Your task to perform on an android device: open device folders in google photos Image 0: 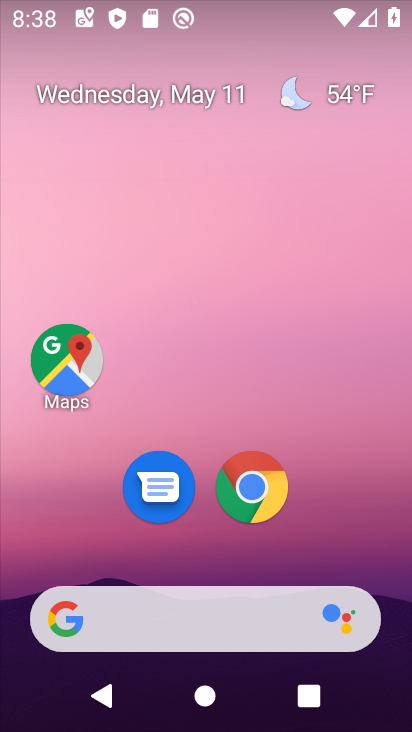
Step 0: drag from (88, 576) to (264, 52)
Your task to perform on an android device: open device folders in google photos Image 1: 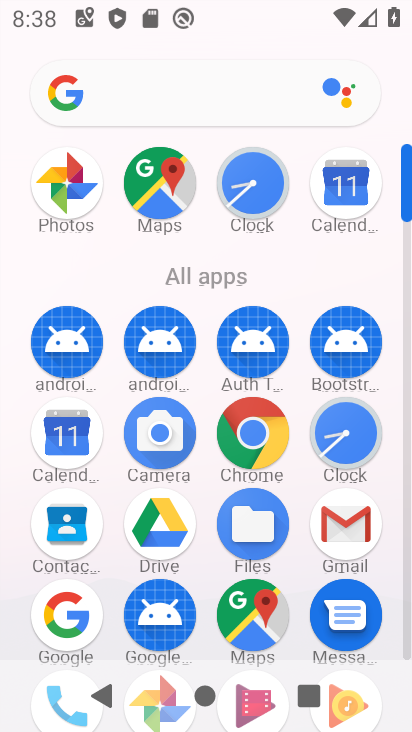
Step 1: drag from (215, 568) to (257, 397)
Your task to perform on an android device: open device folders in google photos Image 2: 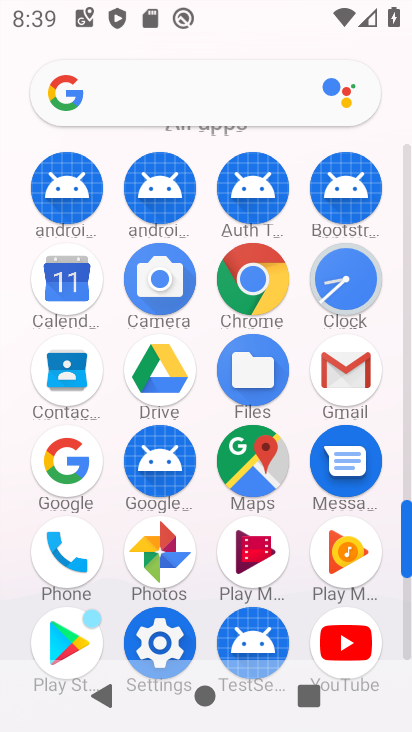
Step 2: click (173, 577)
Your task to perform on an android device: open device folders in google photos Image 3: 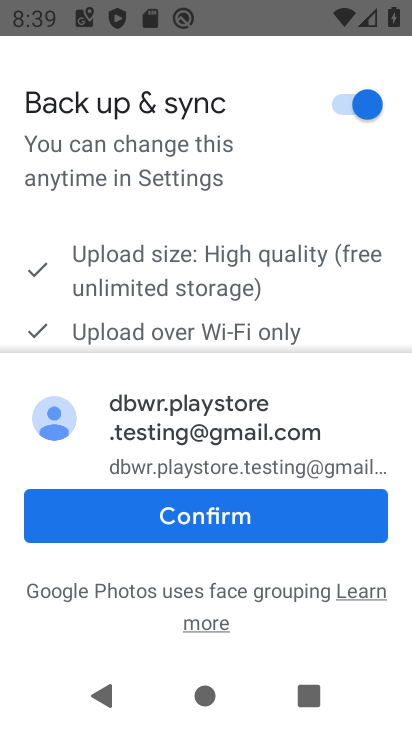
Step 3: click (207, 532)
Your task to perform on an android device: open device folders in google photos Image 4: 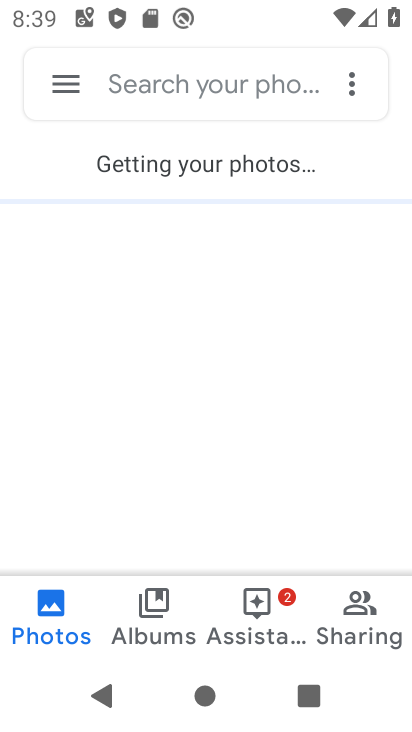
Step 4: click (66, 89)
Your task to perform on an android device: open device folders in google photos Image 5: 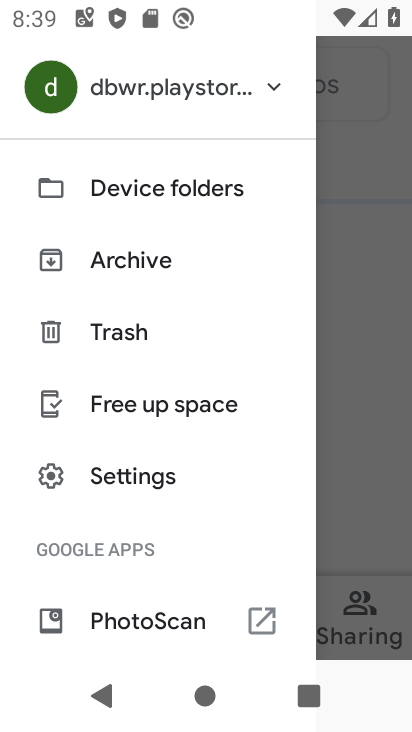
Step 5: click (149, 197)
Your task to perform on an android device: open device folders in google photos Image 6: 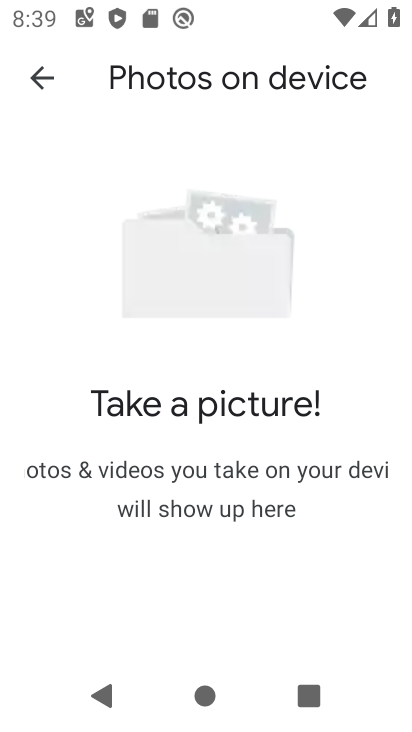
Step 6: task complete